Your task to perform on an android device: Open ESPN.com Image 0: 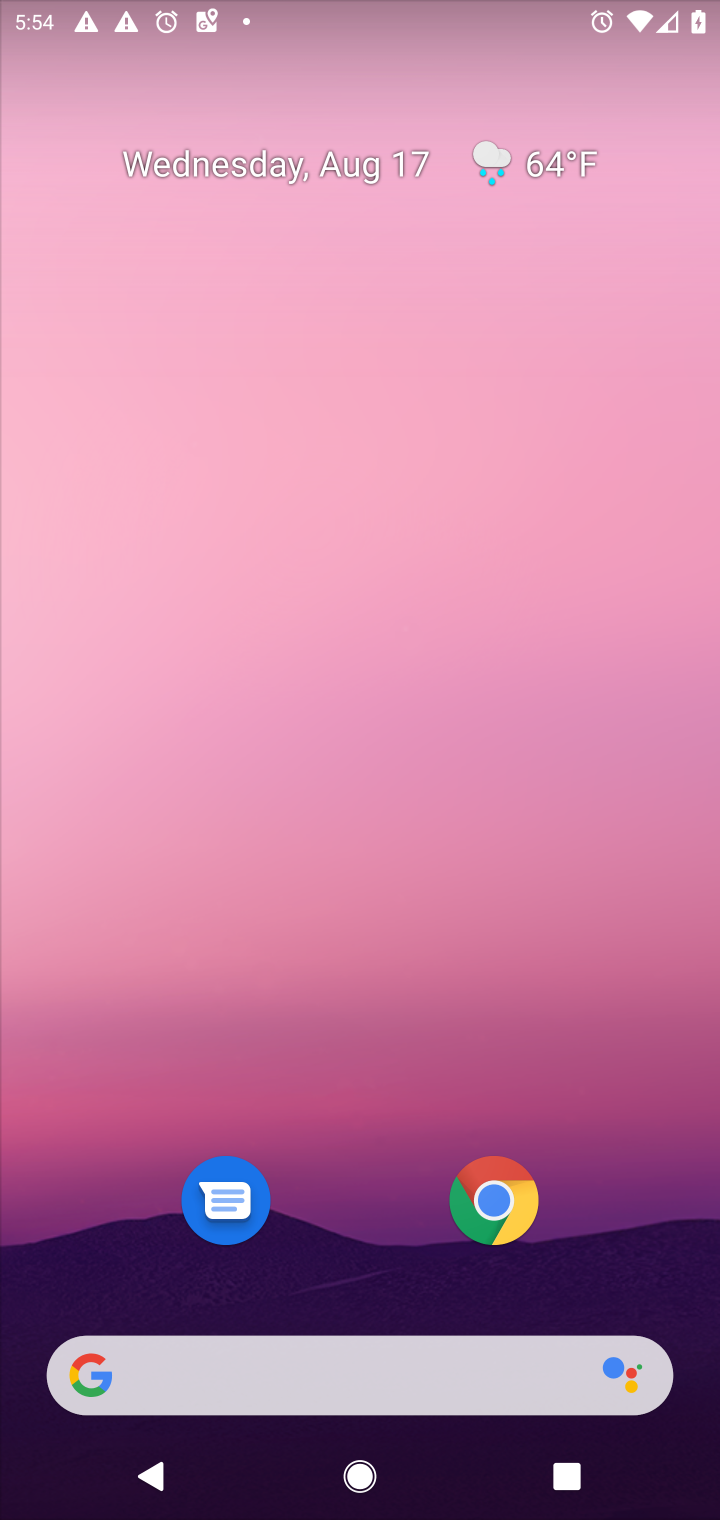
Step 0: press home button
Your task to perform on an android device: Open ESPN.com Image 1: 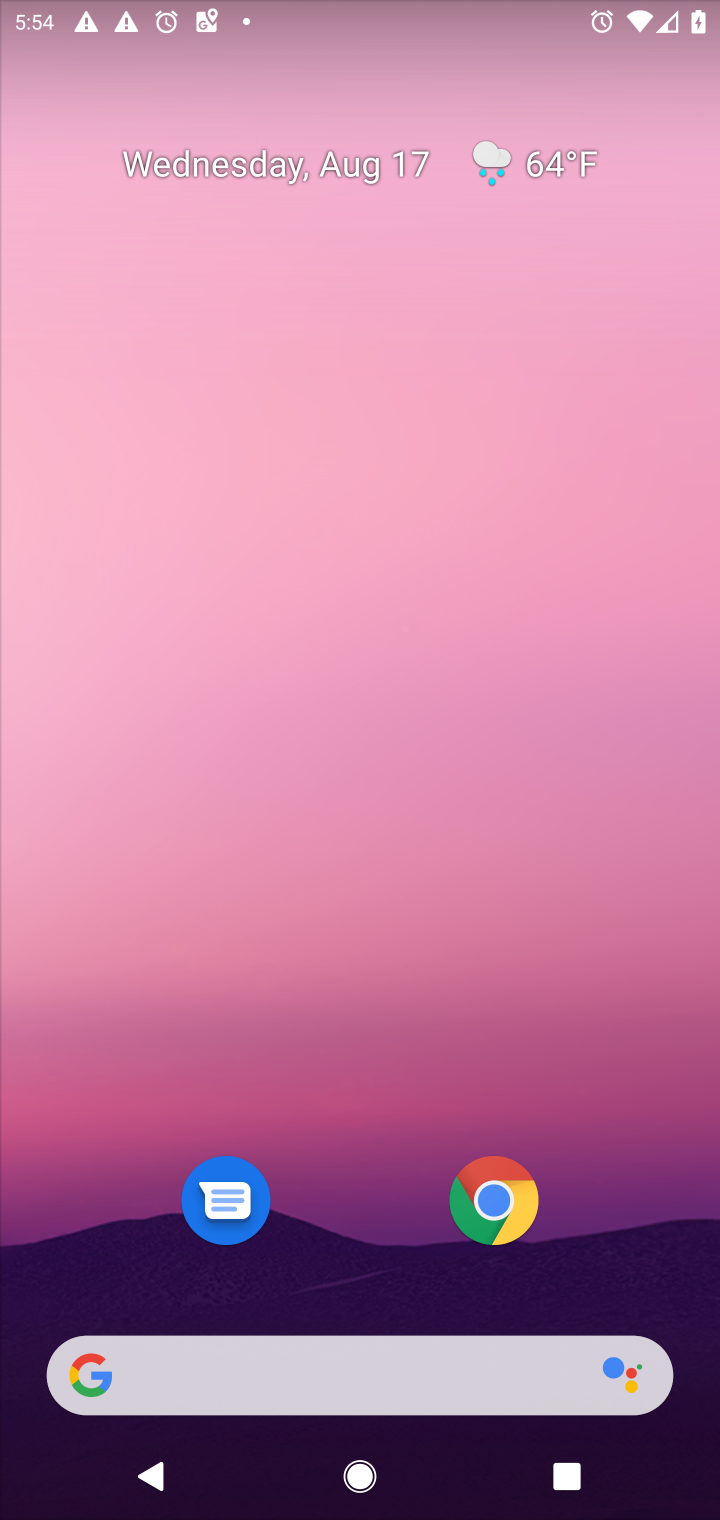
Step 1: click (497, 1201)
Your task to perform on an android device: Open ESPN.com Image 2: 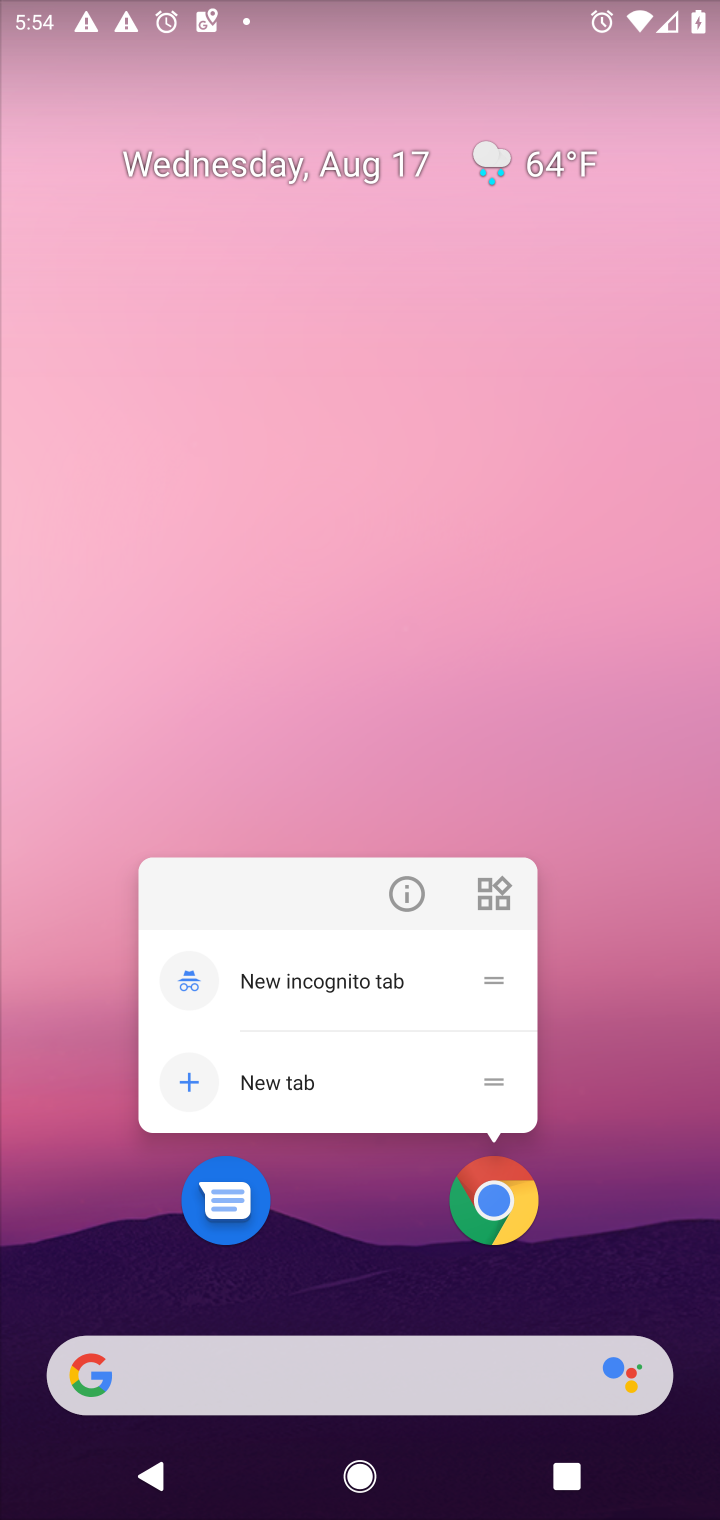
Step 2: click (493, 1201)
Your task to perform on an android device: Open ESPN.com Image 3: 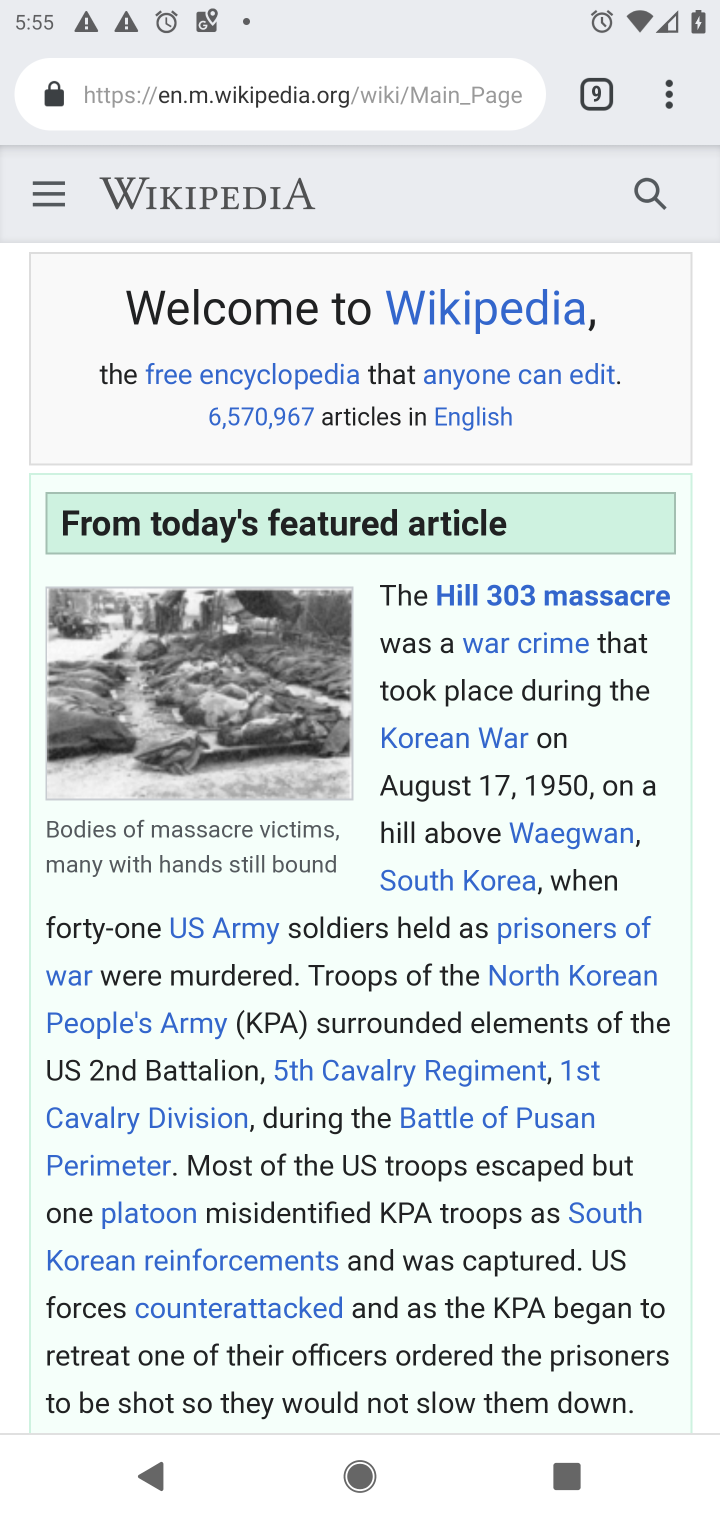
Step 3: click (668, 101)
Your task to perform on an android device: Open ESPN.com Image 4: 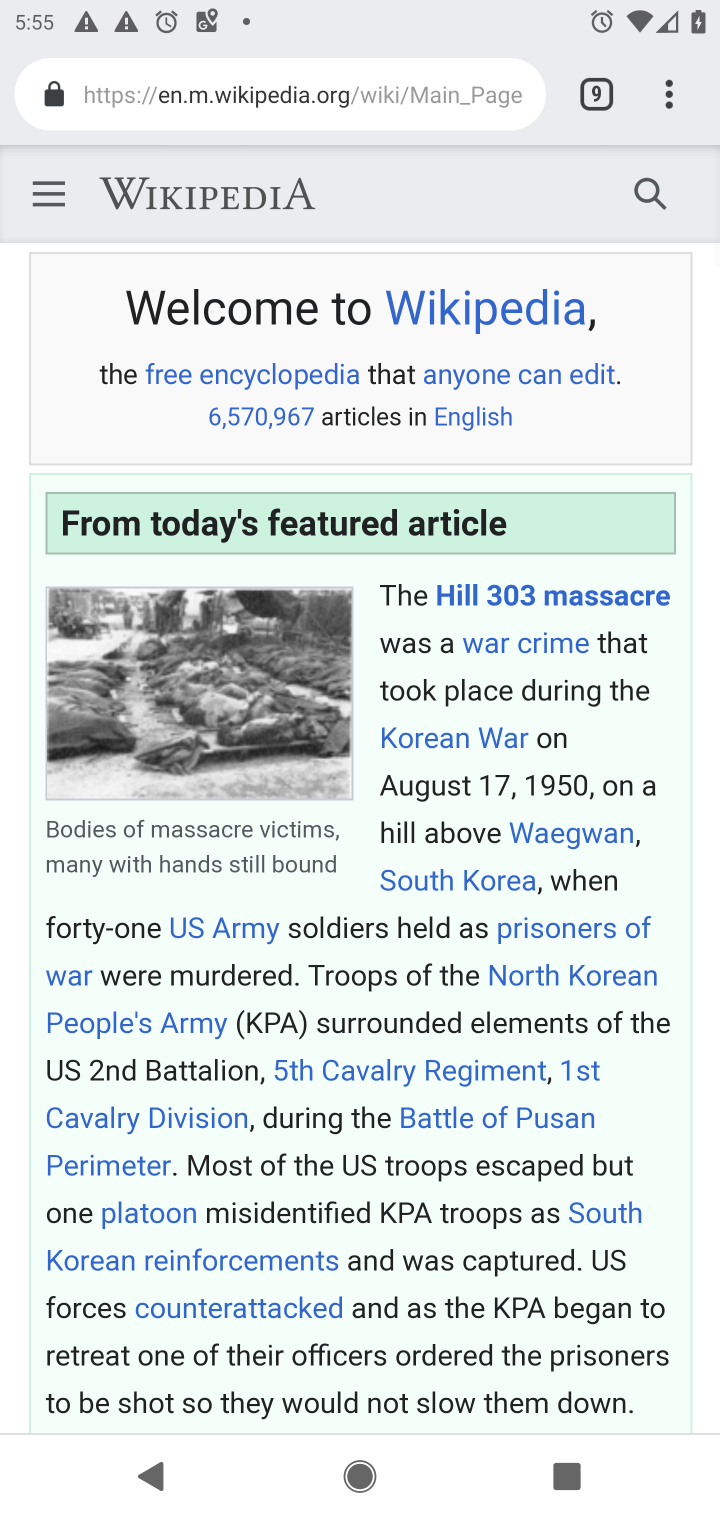
Step 4: click (668, 101)
Your task to perform on an android device: Open ESPN.com Image 5: 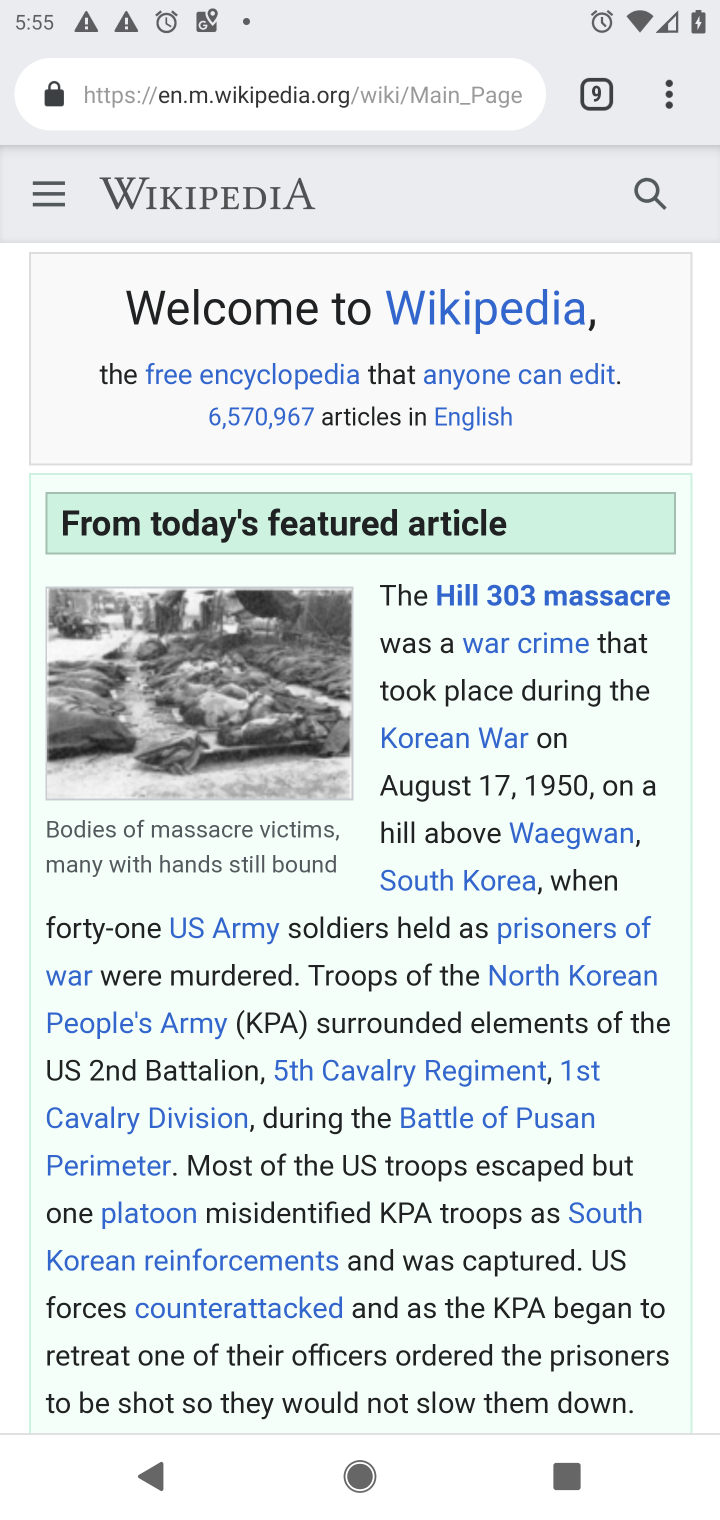
Step 5: drag from (668, 99) to (338, 180)
Your task to perform on an android device: Open ESPN.com Image 6: 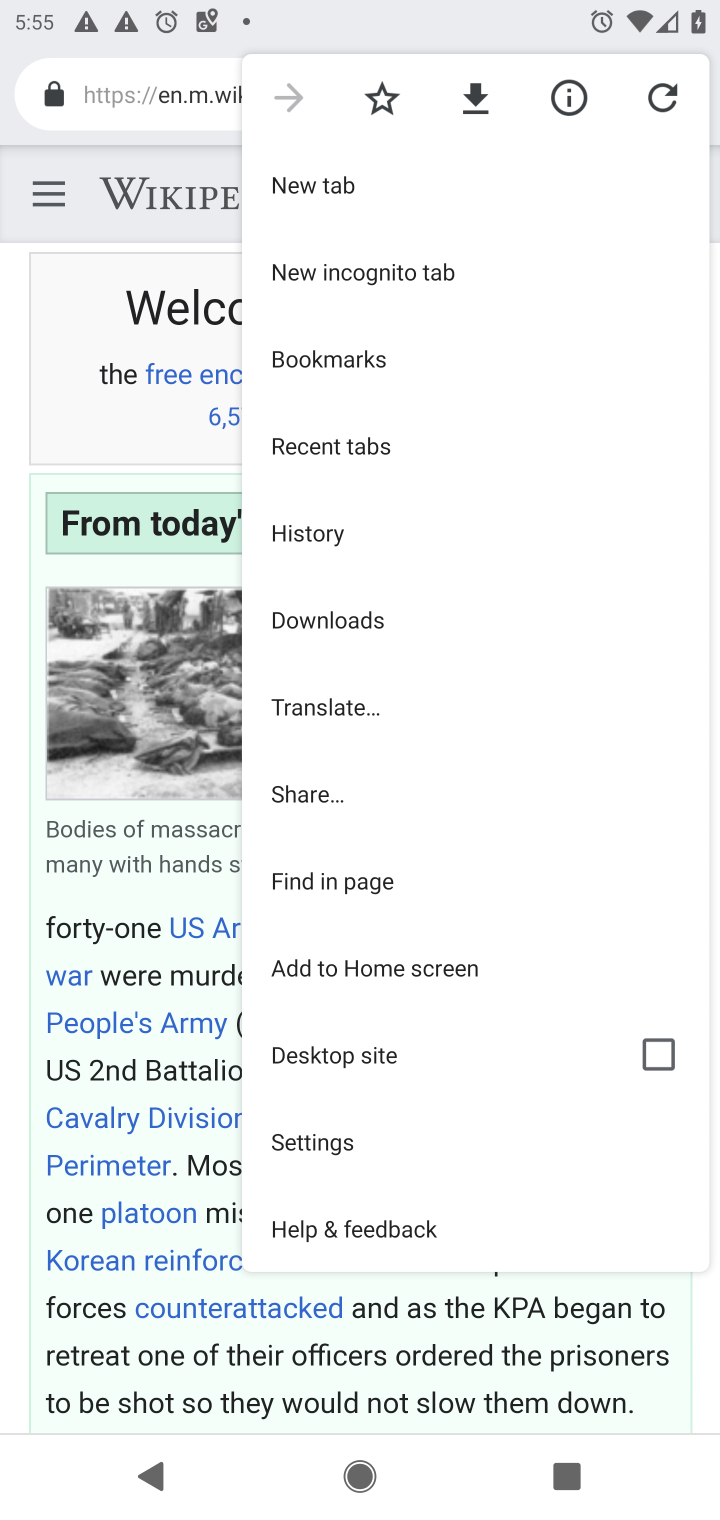
Step 6: click (322, 174)
Your task to perform on an android device: Open ESPN.com Image 7: 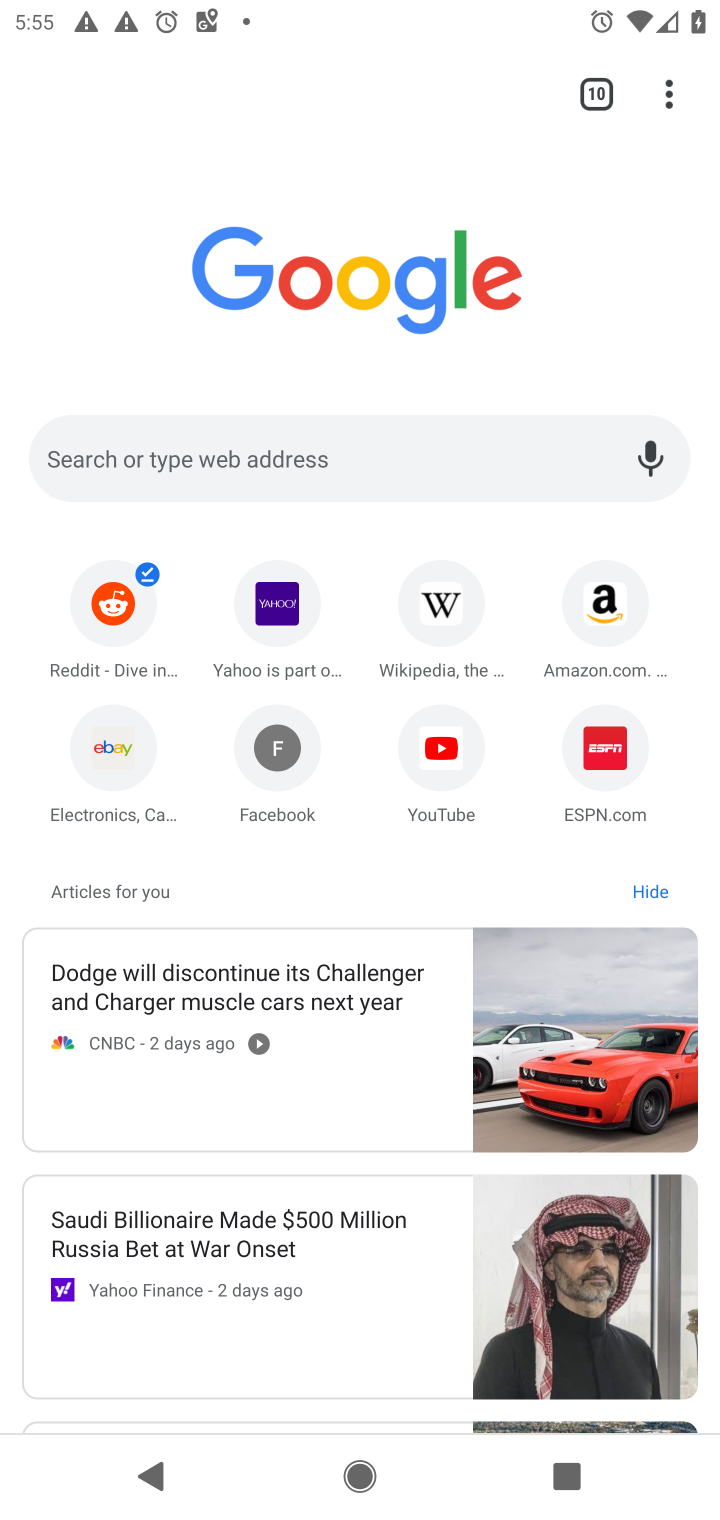
Step 7: click (608, 761)
Your task to perform on an android device: Open ESPN.com Image 8: 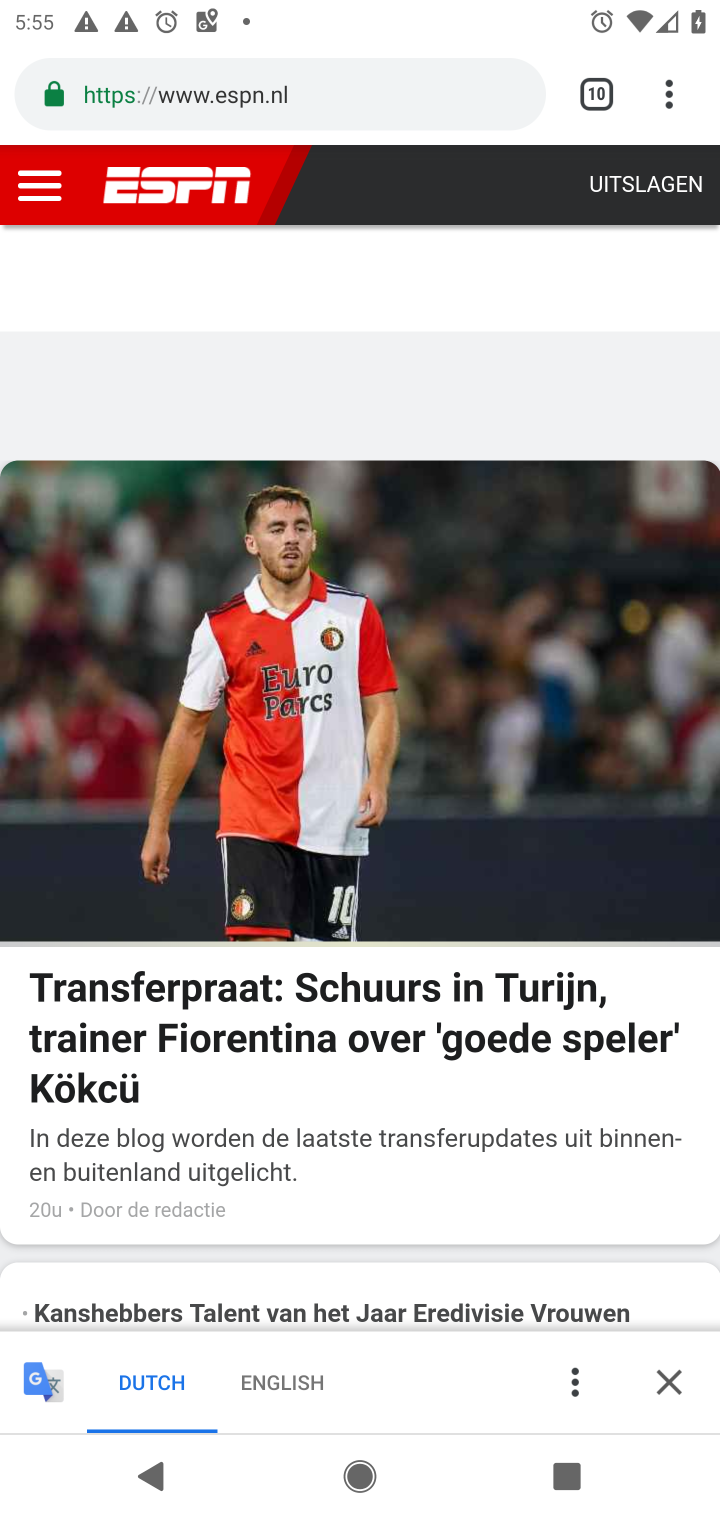
Step 8: task complete